Your task to perform on an android device: set an alarm Image 0: 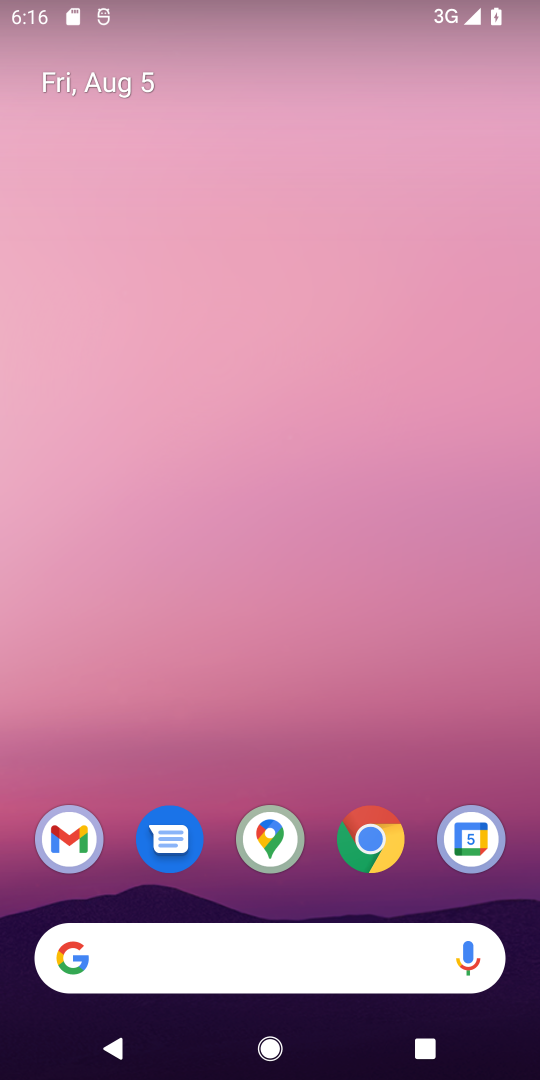
Step 0: drag from (266, 532) to (247, 206)
Your task to perform on an android device: set an alarm Image 1: 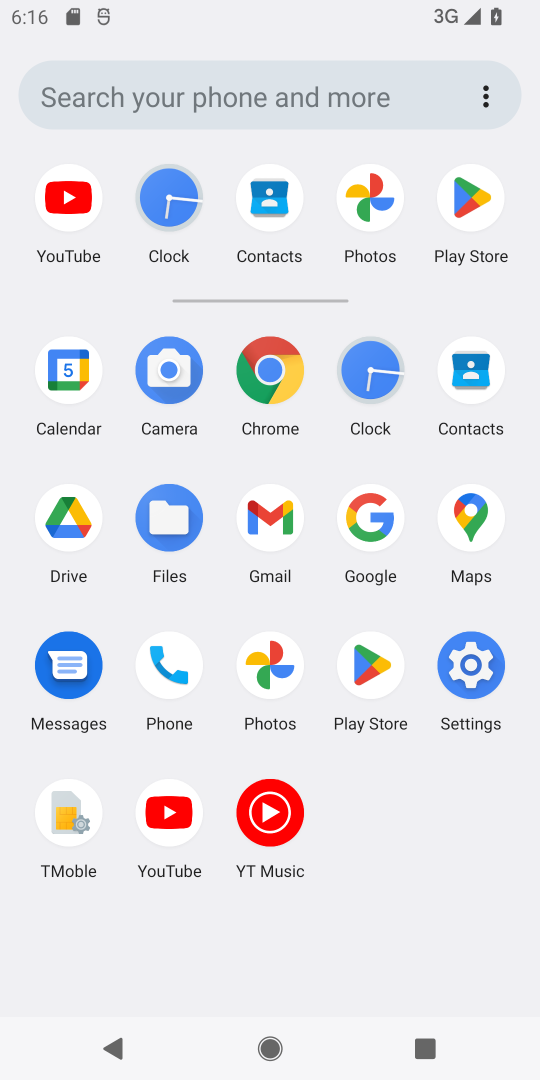
Step 1: click (387, 390)
Your task to perform on an android device: set an alarm Image 2: 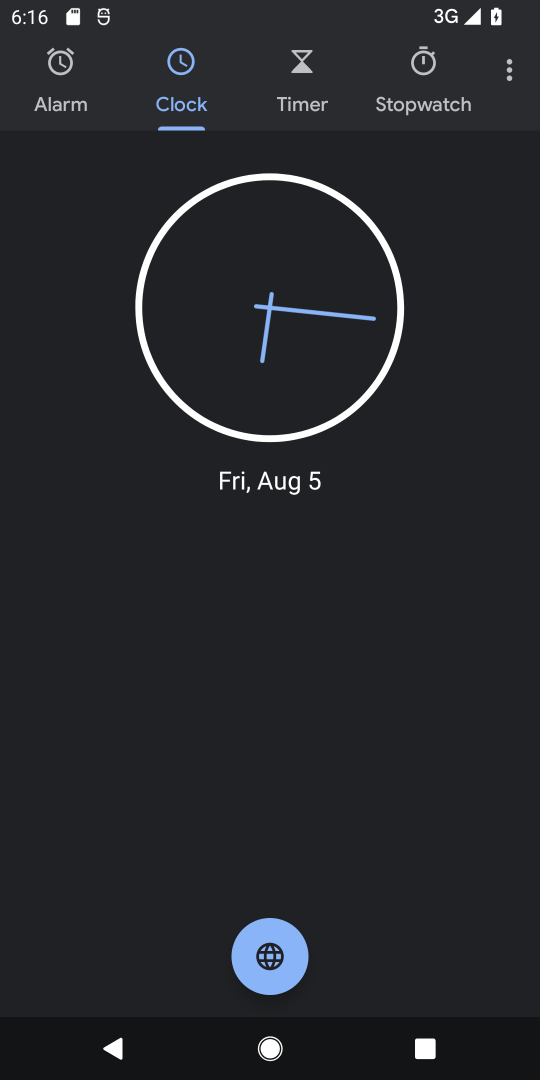
Step 2: click (514, 54)
Your task to perform on an android device: set an alarm Image 3: 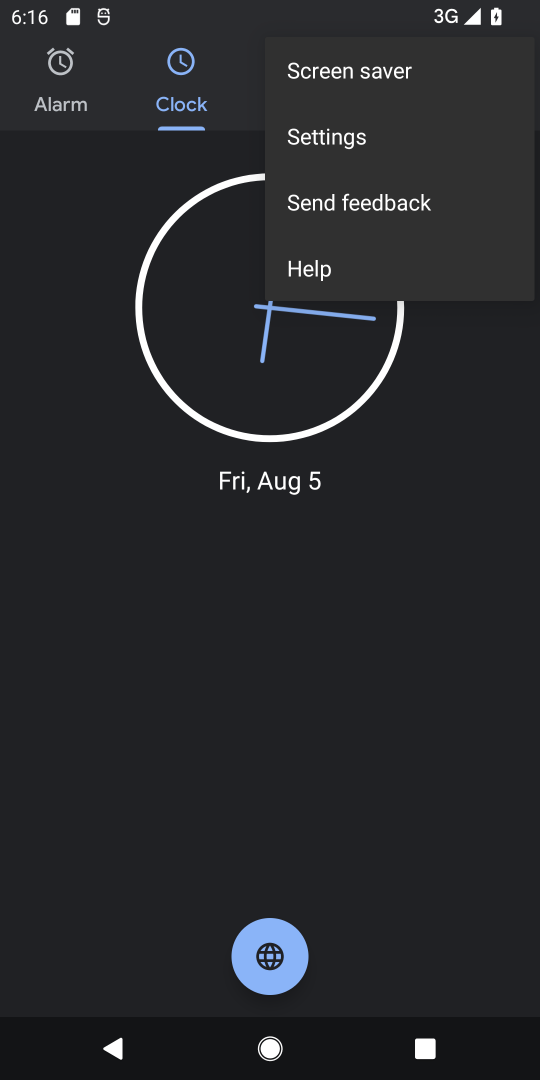
Step 3: click (360, 134)
Your task to perform on an android device: set an alarm Image 4: 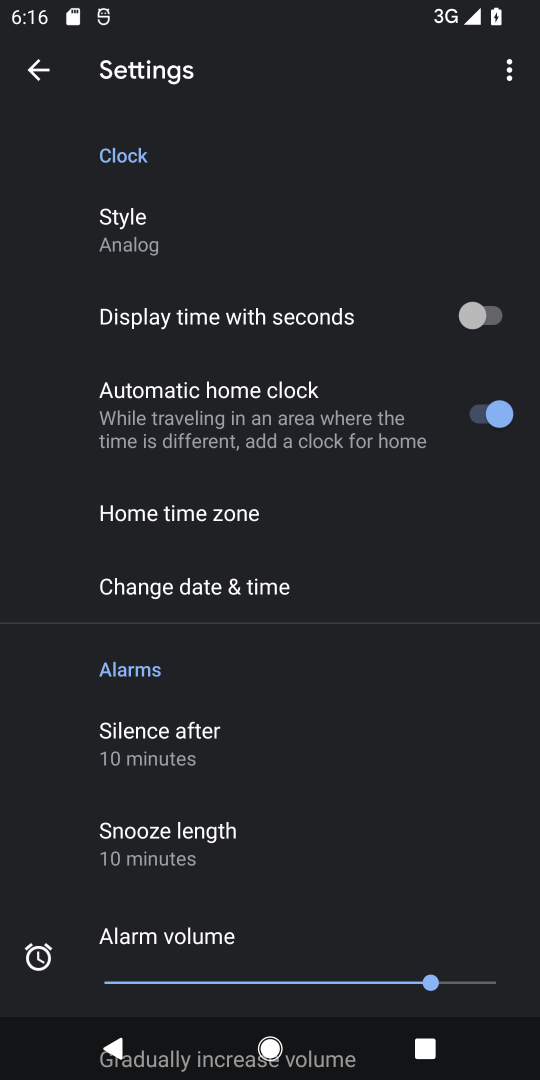
Step 4: click (43, 83)
Your task to perform on an android device: set an alarm Image 5: 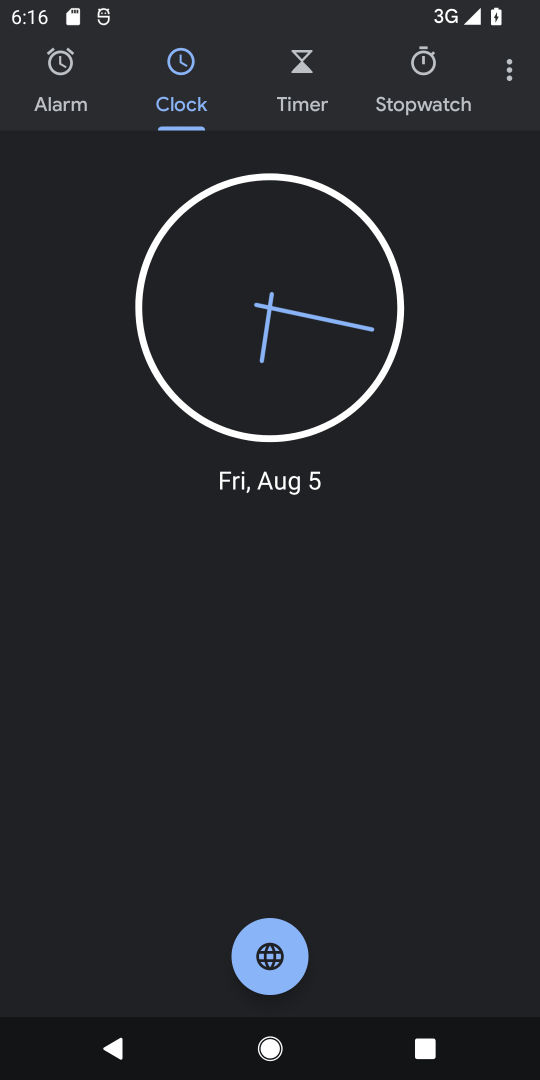
Step 5: click (71, 91)
Your task to perform on an android device: set an alarm Image 6: 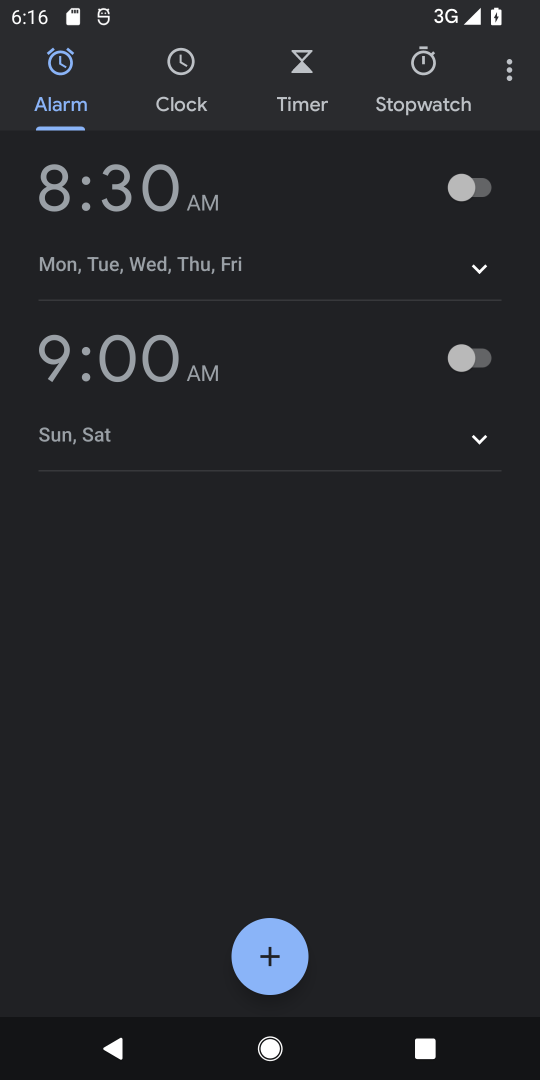
Step 6: click (474, 209)
Your task to perform on an android device: set an alarm Image 7: 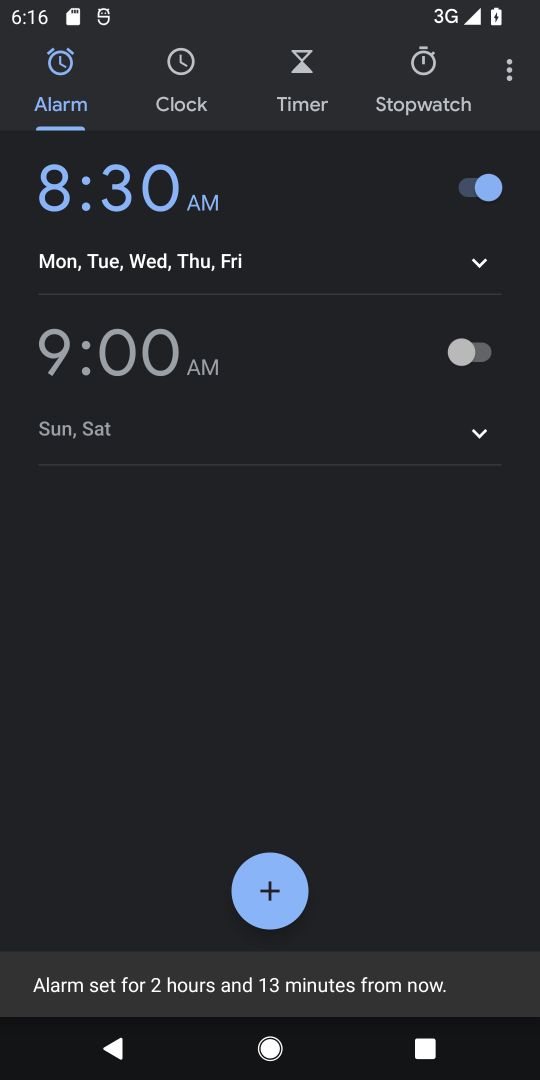
Step 7: task complete